Your task to perform on an android device: turn on the 12-hour format for clock Image 0: 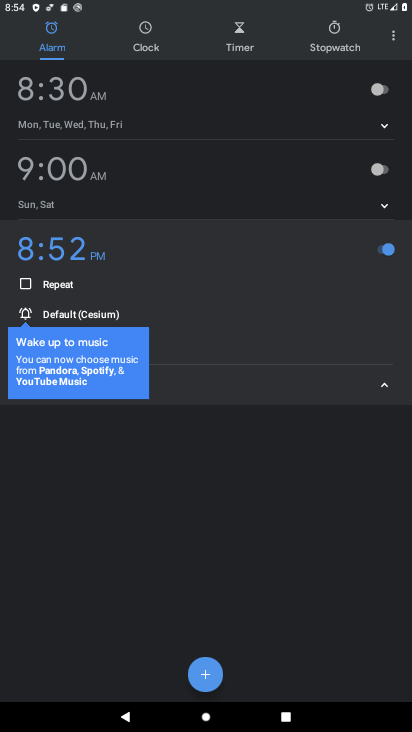
Step 0: press home button
Your task to perform on an android device: turn on the 12-hour format for clock Image 1: 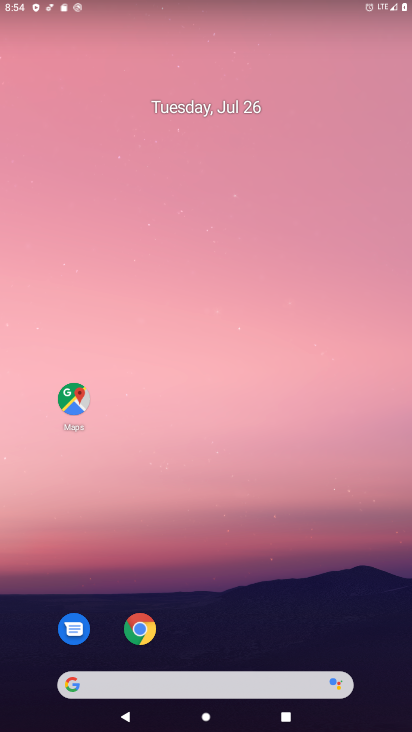
Step 1: drag from (222, 649) to (156, 177)
Your task to perform on an android device: turn on the 12-hour format for clock Image 2: 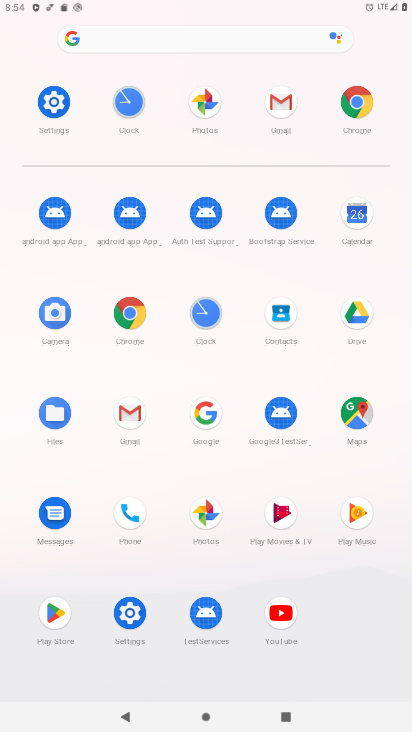
Step 2: click (212, 319)
Your task to perform on an android device: turn on the 12-hour format for clock Image 3: 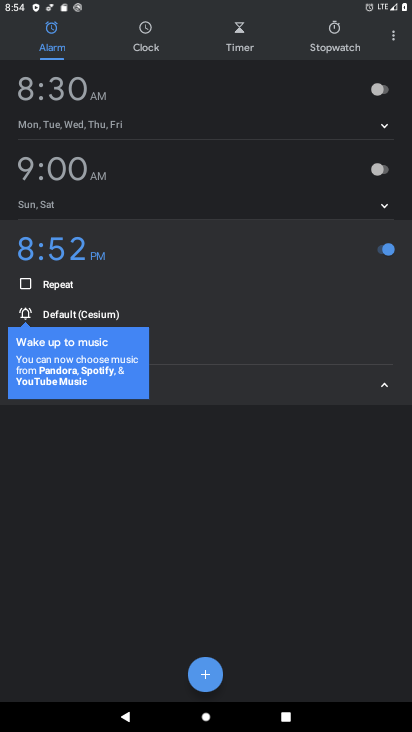
Step 3: click (392, 44)
Your task to perform on an android device: turn on the 12-hour format for clock Image 4: 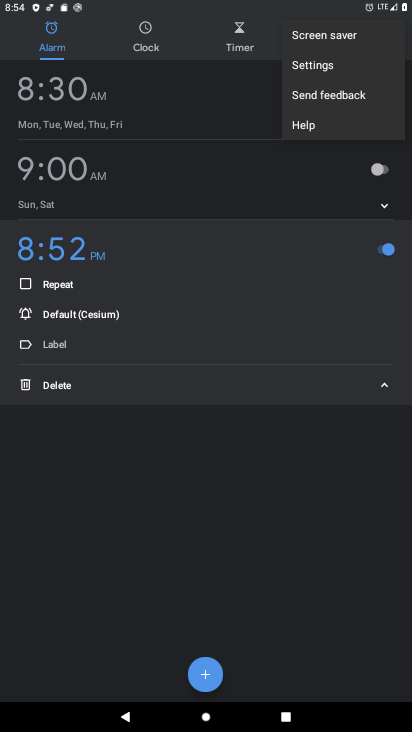
Step 4: click (330, 66)
Your task to perform on an android device: turn on the 12-hour format for clock Image 5: 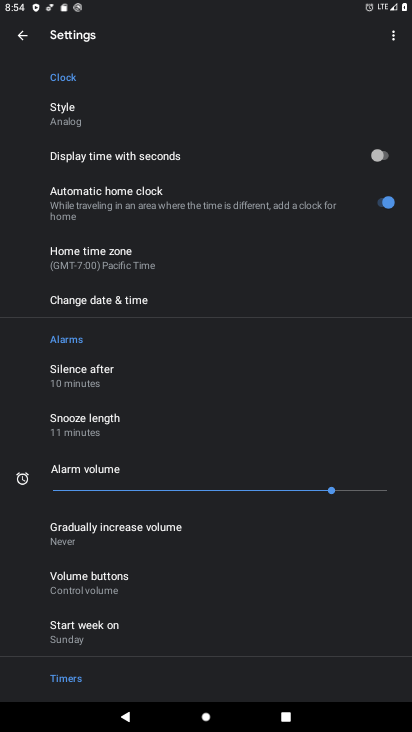
Step 5: click (65, 308)
Your task to perform on an android device: turn on the 12-hour format for clock Image 6: 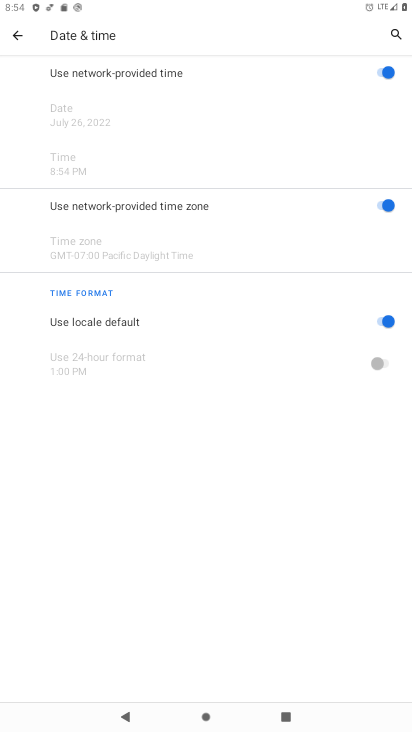
Step 6: task complete